Your task to perform on an android device: turn off translation in the chrome app Image 0: 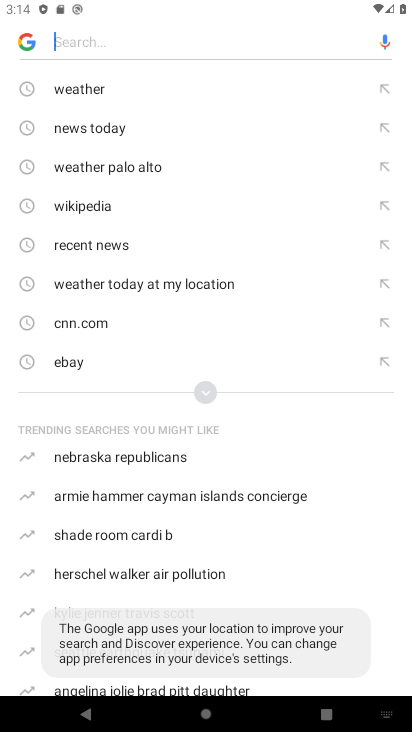
Step 0: press home button
Your task to perform on an android device: turn off translation in the chrome app Image 1: 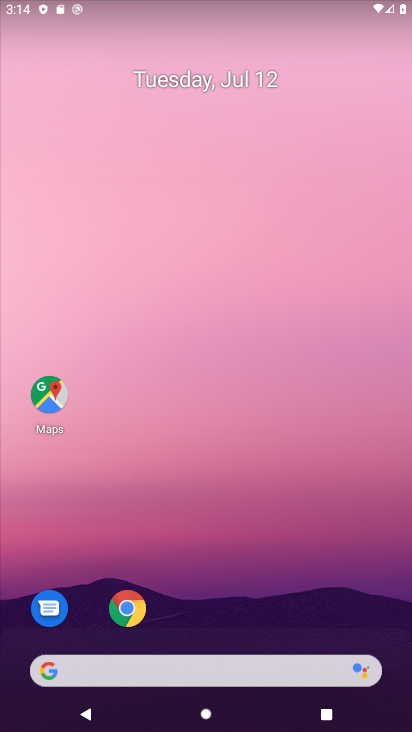
Step 1: click (131, 618)
Your task to perform on an android device: turn off translation in the chrome app Image 2: 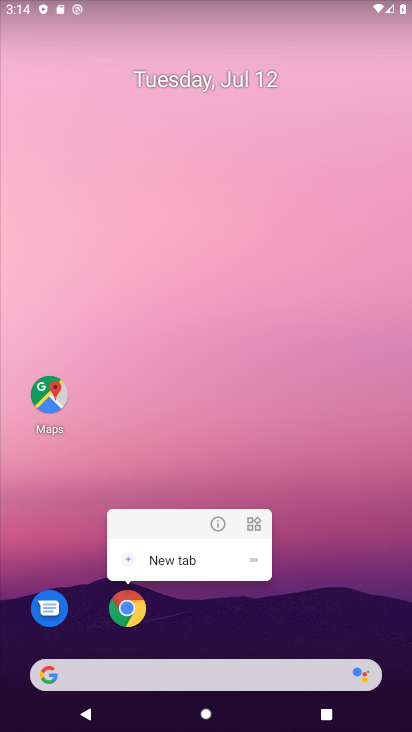
Step 2: click (131, 611)
Your task to perform on an android device: turn off translation in the chrome app Image 3: 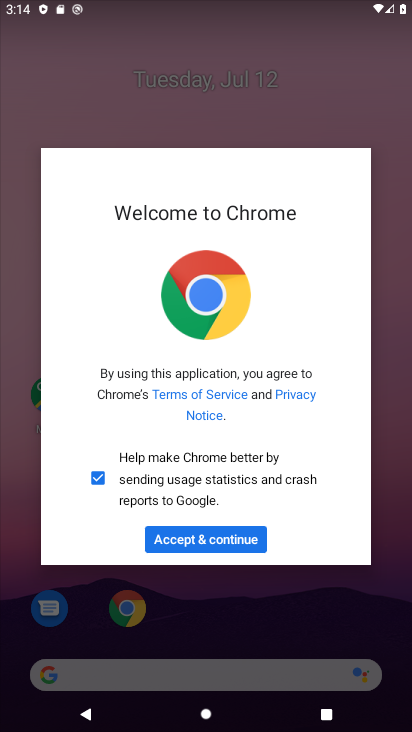
Step 3: click (238, 540)
Your task to perform on an android device: turn off translation in the chrome app Image 4: 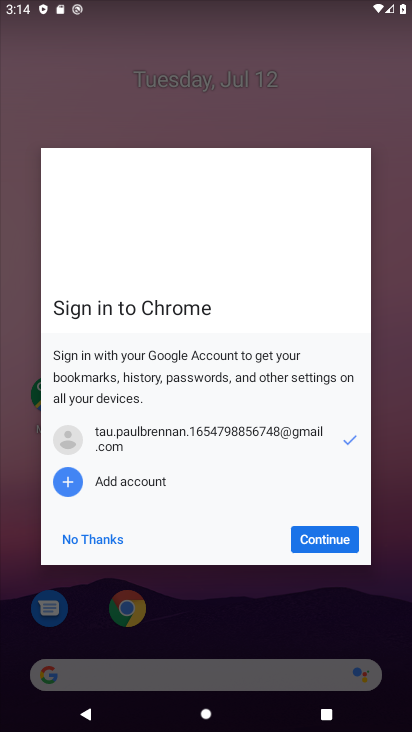
Step 4: click (346, 551)
Your task to perform on an android device: turn off translation in the chrome app Image 5: 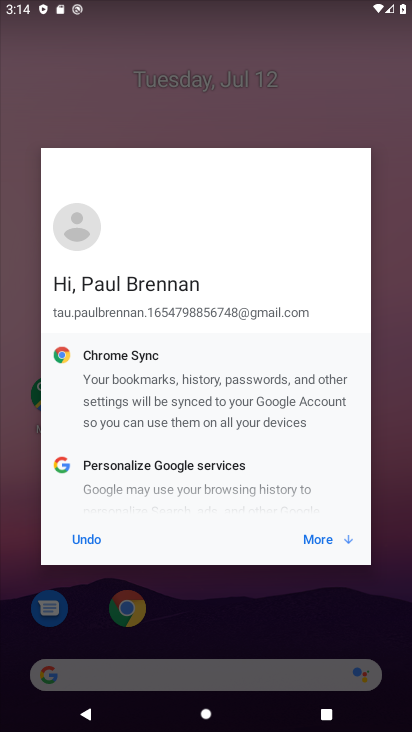
Step 5: click (331, 547)
Your task to perform on an android device: turn off translation in the chrome app Image 6: 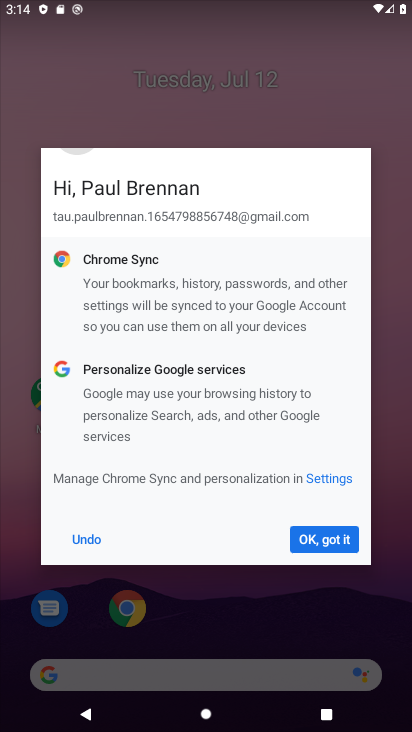
Step 6: click (331, 547)
Your task to perform on an android device: turn off translation in the chrome app Image 7: 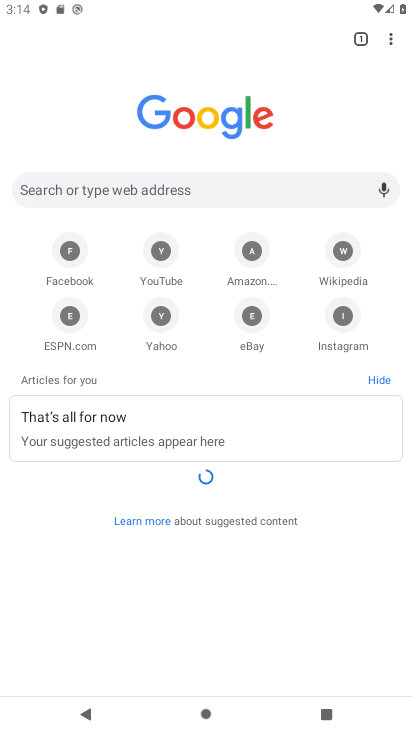
Step 7: drag from (385, 30) to (282, 318)
Your task to perform on an android device: turn off translation in the chrome app Image 8: 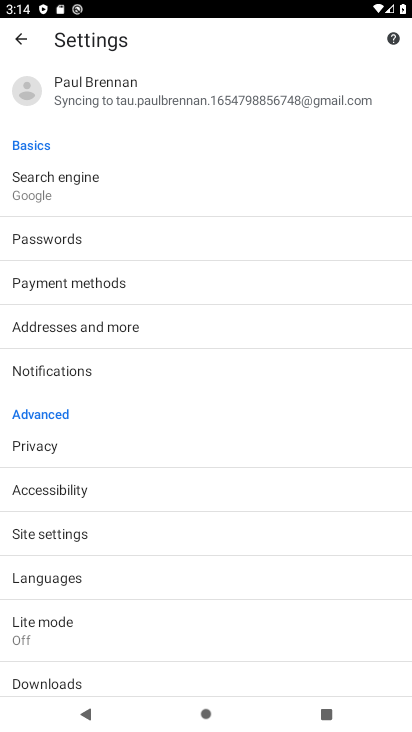
Step 8: click (130, 588)
Your task to perform on an android device: turn off translation in the chrome app Image 9: 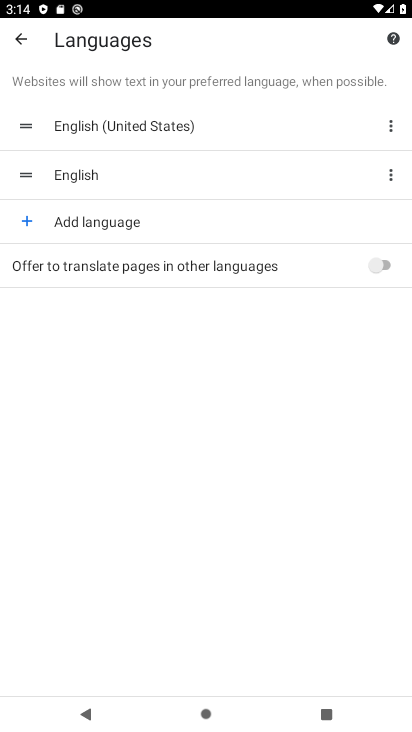
Step 9: task complete